Your task to perform on an android device: turn on showing notifications on the lock screen Image 0: 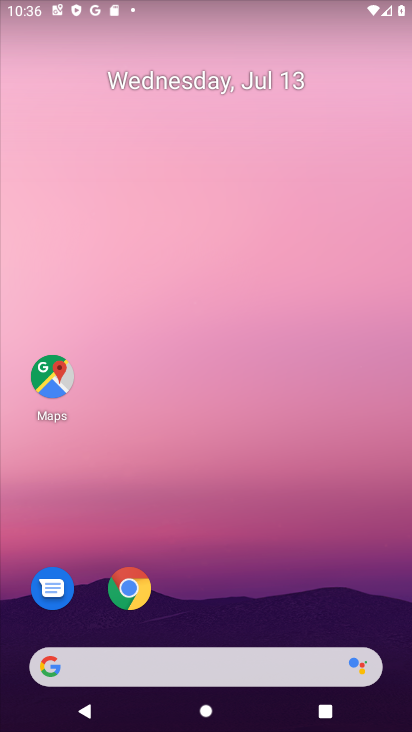
Step 0: drag from (269, 608) to (280, 45)
Your task to perform on an android device: turn on showing notifications on the lock screen Image 1: 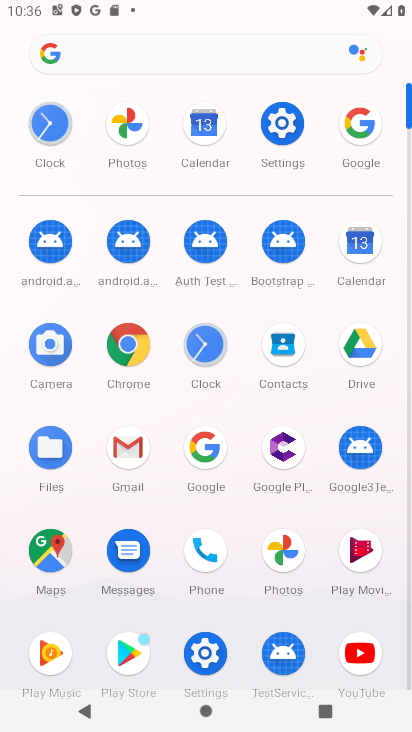
Step 1: click (206, 653)
Your task to perform on an android device: turn on showing notifications on the lock screen Image 2: 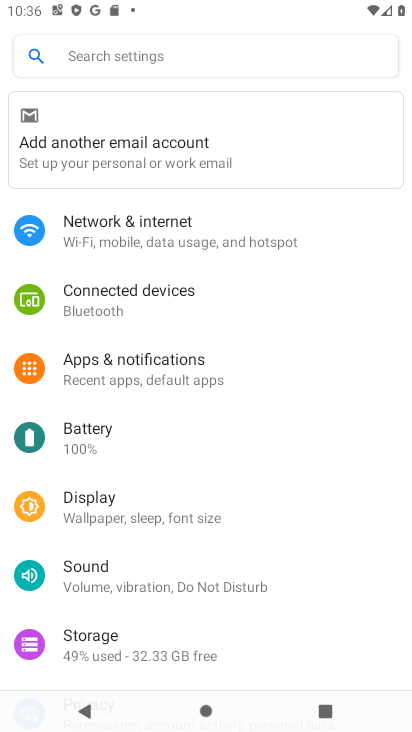
Step 2: click (143, 364)
Your task to perform on an android device: turn on showing notifications on the lock screen Image 3: 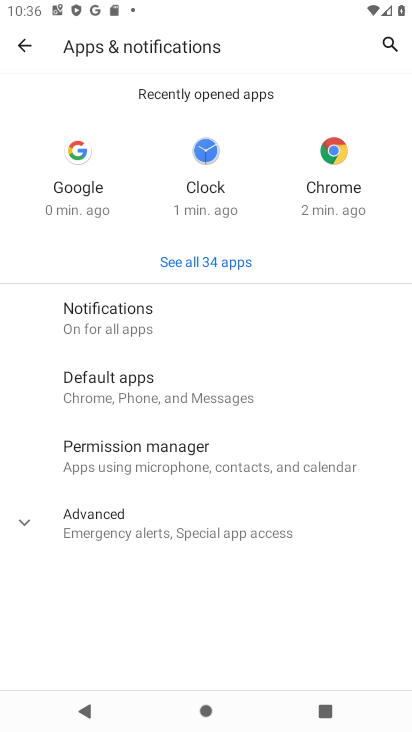
Step 3: click (127, 326)
Your task to perform on an android device: turn on showing notifications on the lock screen Image 4: 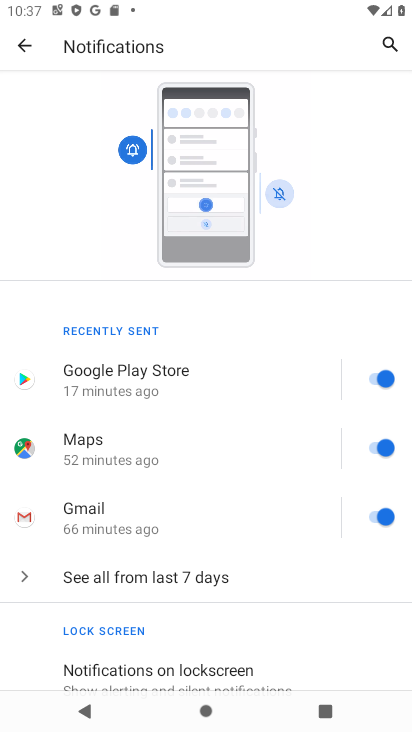
Step 4: drag from (227, 641) to (238, 184)
Your task to perform on an android device: turn on showing notifications on the lock screen Image 5: 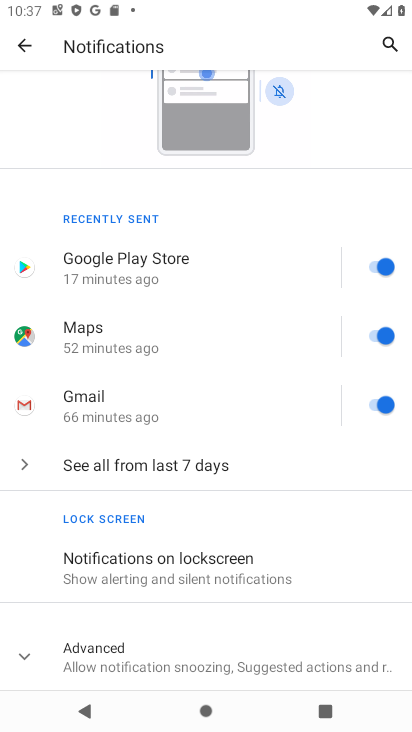
Step 5: click (245, 577)
Your task to perform on an android device: turn on showing notifications on the lock screen Image 6: 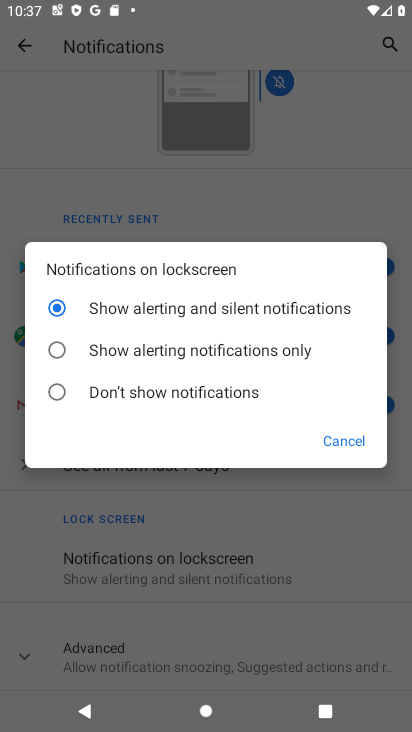
Step 6: task complete